Your task to perform on an android device: Do I have any events tomorrow? Image 0: 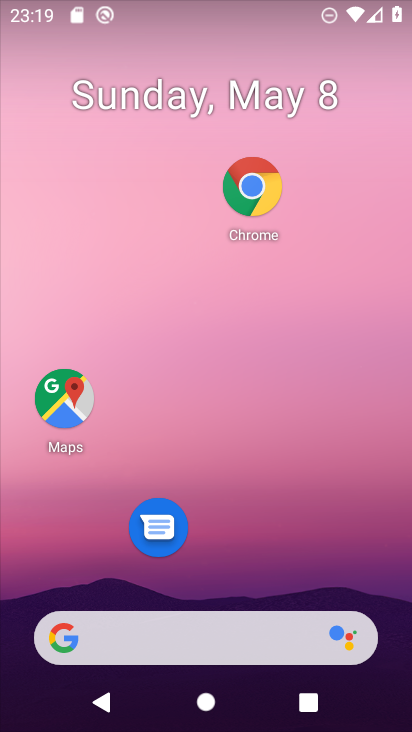
Step 0: drag from (262, 381) to (295, 263)
Your task to perform on an android device: Do I have any events tomorrow? Image 1: 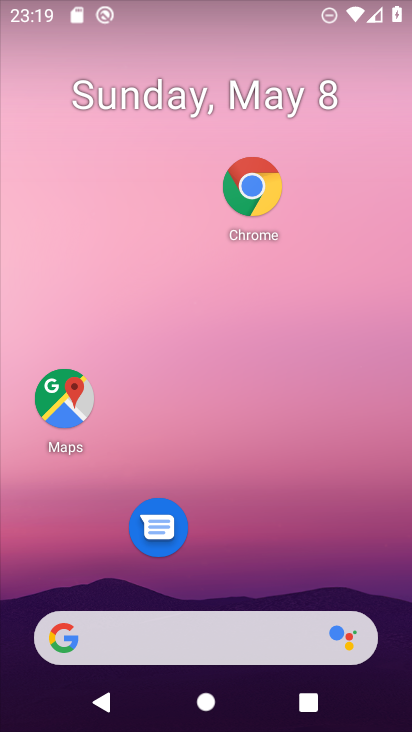
Step 1: drag from (319, 321) to (323, 277)
Your task to perform on an android device: Do I have any events tomorrow? Image 2: 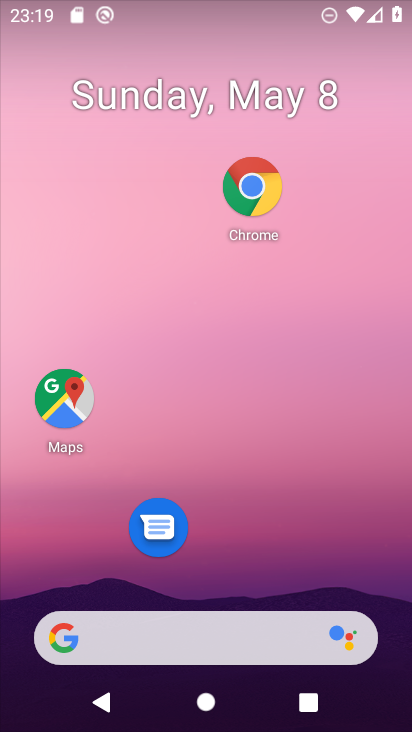
Step 2: drag from (246, 507) to (287, 130)
Your task to perform on an android device: Do I have any events tomorrow? Image 3: 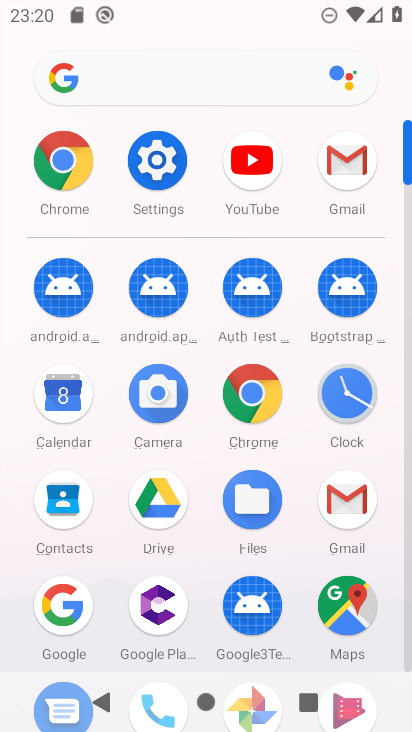
Step 3: click (47, 390)
Your task to perform on an android device: Do I have any events tomorrow? Image 4: 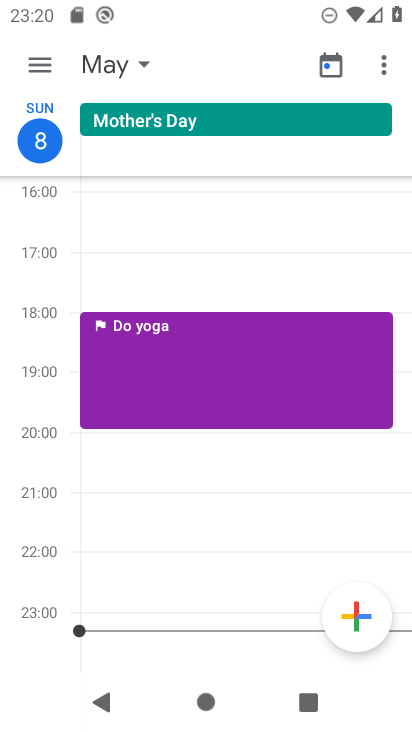
Step 4: click (48, 56)
Your task to perform on an android device: Do I have any events tomorrow? Image 5: 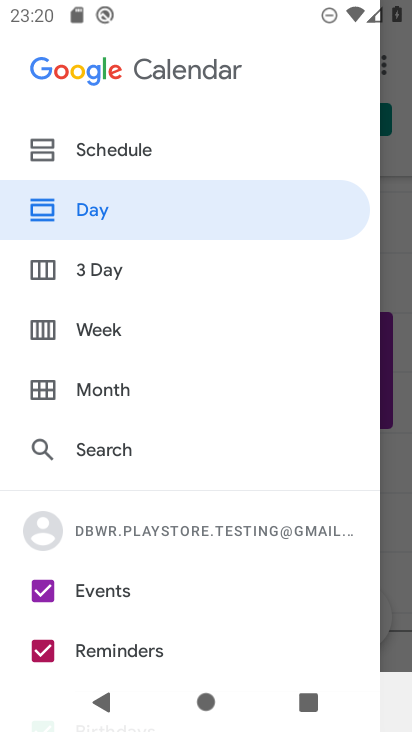
Step 5: click (125, 395)
Your task to perform on an android device: Do I have any events tomorrow? Image 6: 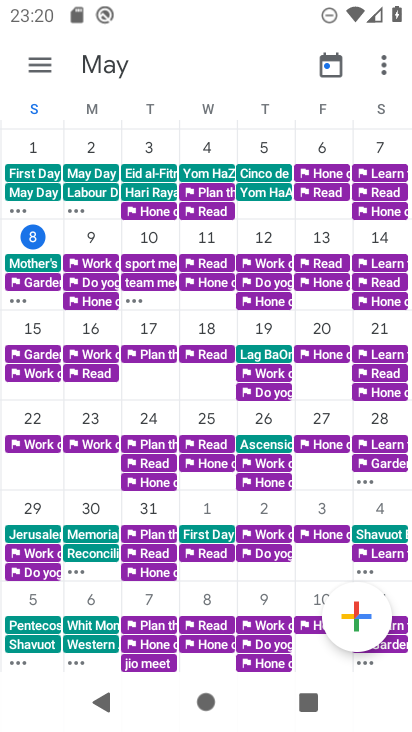
Step 6: click (106, 232)
Your task to perform on an android device: Do I have any events tomorrow? Image 7: 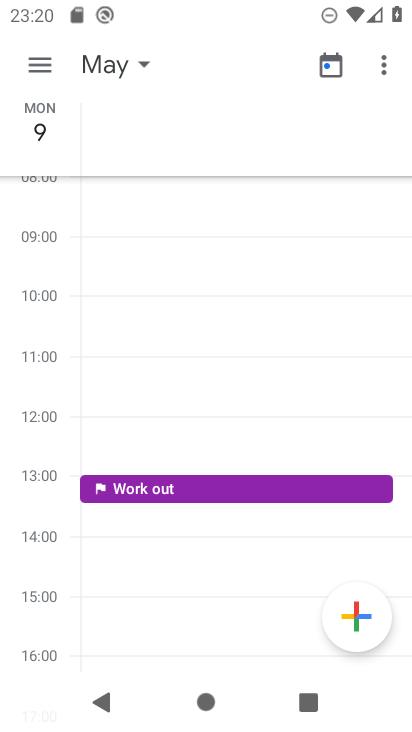
Step 7: click (38, 62)
Your task to perform on an android device: Do I have any events tomorrow? Image 8: 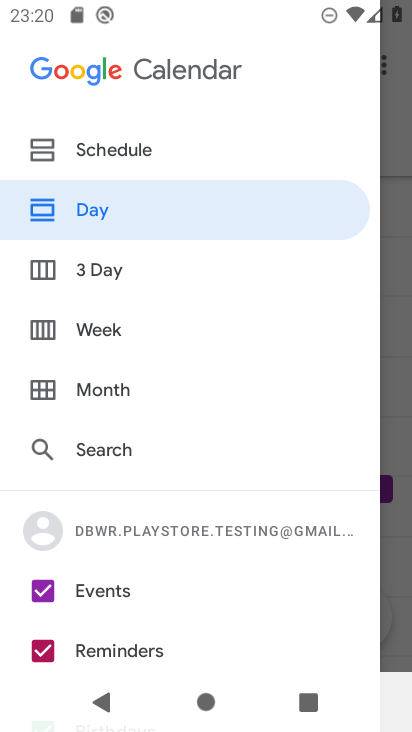
Step 8: click (133, 209)
Your task to perform on an android device: Do I have any events tomorrow? Image 9: 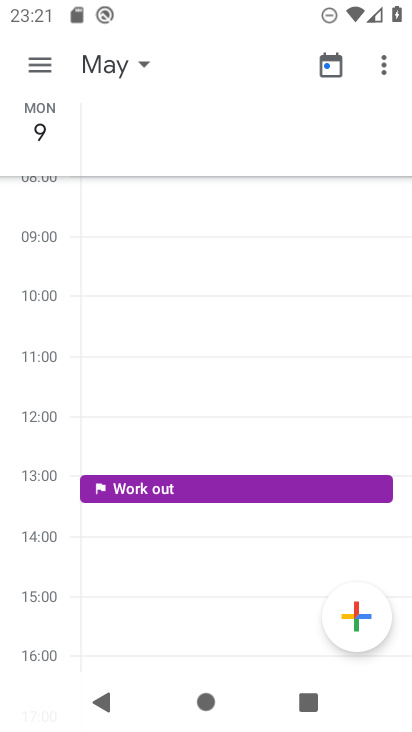
Step 9: task complete